Your task to perform on an android device: Open settings Image 0: 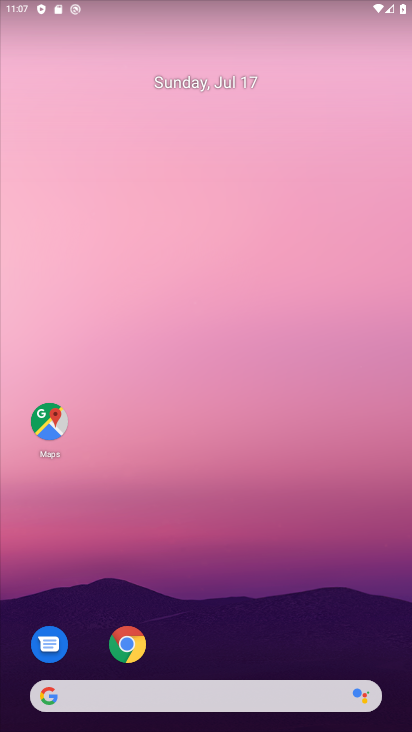
Step 0: drag from (294, 602) to (318, 86)
Your task to perform on an android device: Open settings Image 1: 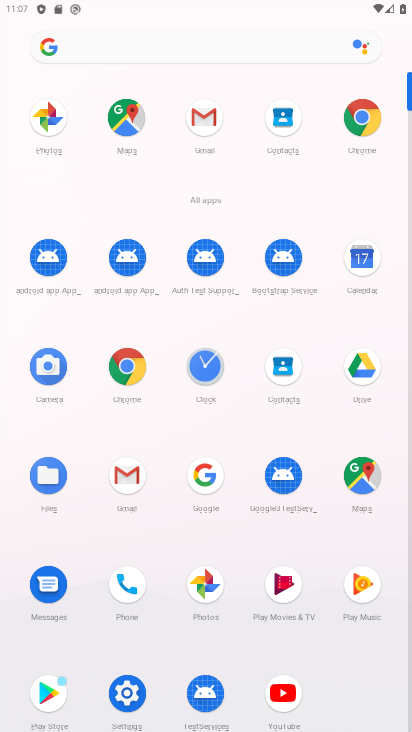
Step 1: click (127, 692)
Your task to perform on an android device: Open settings Image 2: 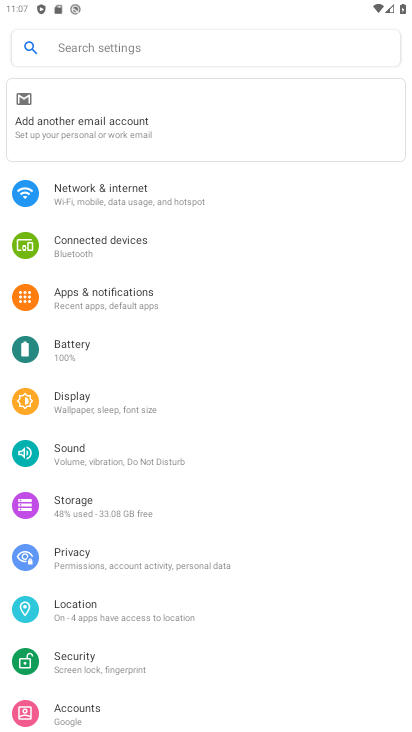
Step 2: task complete